Your task to perform on an android device: turn on sleep mode Image 0: 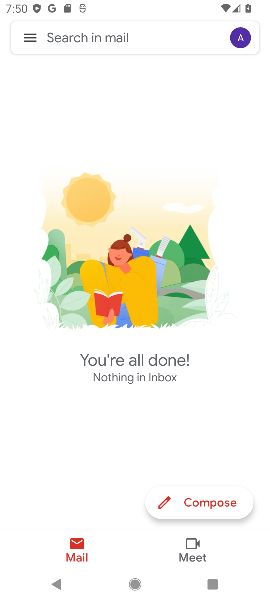
Step 0: press home button
Your task to perform on an android device: turn on sleep mode Image 1: 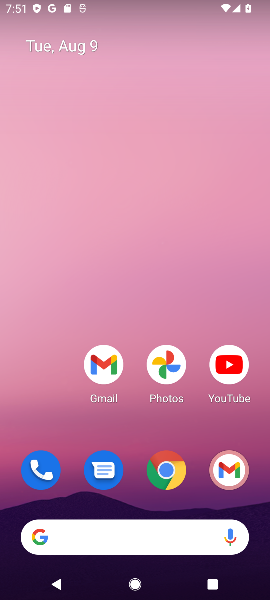
Step 1: drag from (98, 577) to (100, 280)
Your task to perform on an android device: turn on sleep mode Image 2: 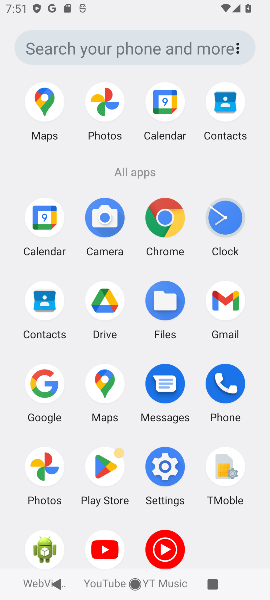
Step 2: click (166, 472)
Your task to perform on an android device: turn on sleep mode Image 3: 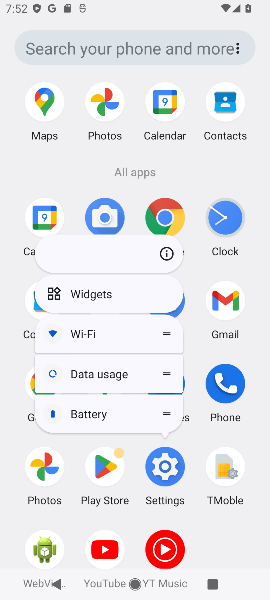
Step 3: click (160, 467)
Your task to perform on an android device: turn on sleep mode Image 4: 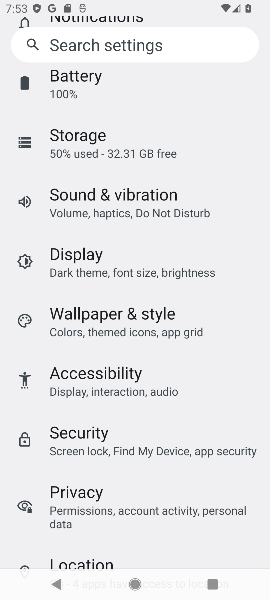
Step 4: click (175, 215)
Your task to perform on an android device: turn on sleep mode Image 5: 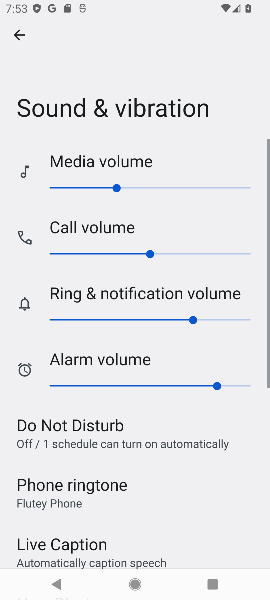
Step 5: task complete